Your task to perform on an android device: toggle priority inbox in the gmail app Image 0: 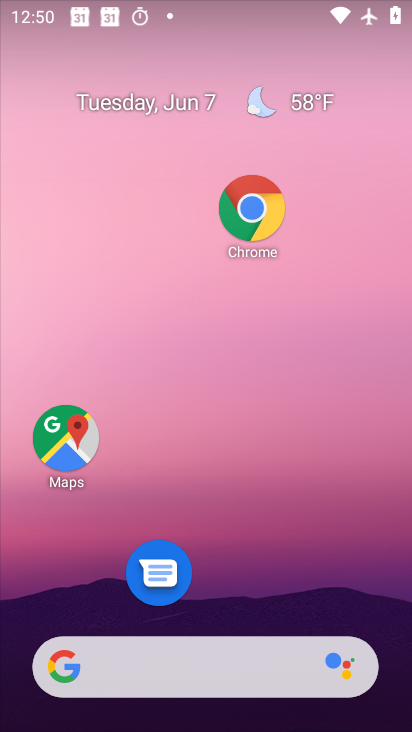
Step 0: drag from (217, 605) to (166, 152)
Your task to perform on an android device: toggle priority inbox in the gmail app Image 1: 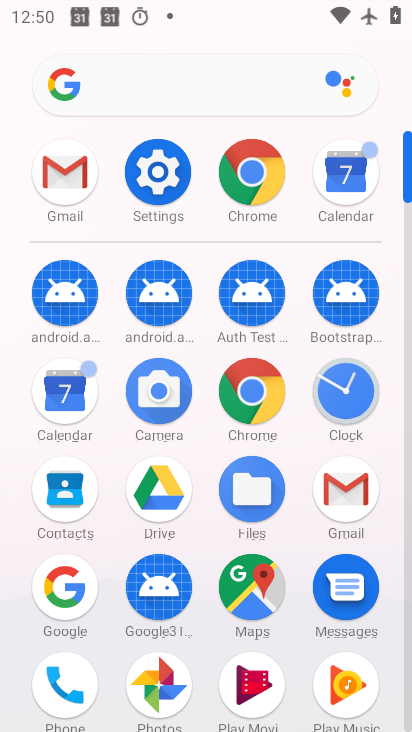
Step 1: click (84, 184)
Your task to perform on an android device: toggle priority inbox in the gmail app Image 2: 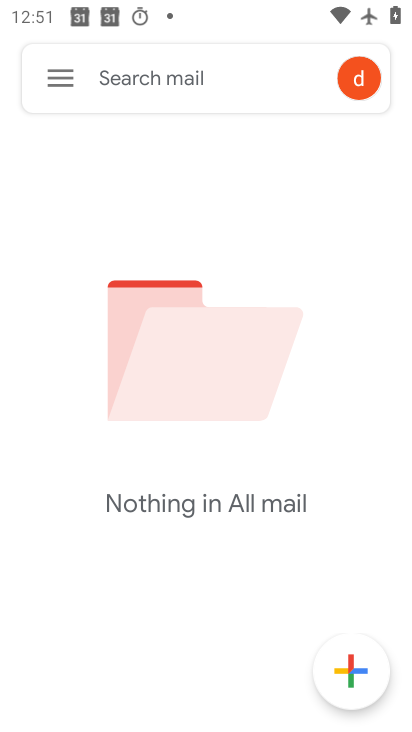
Step 2: click (51, 73)
Your task to perform on an android device: toggle priority inbox in the gmail app Image 3: 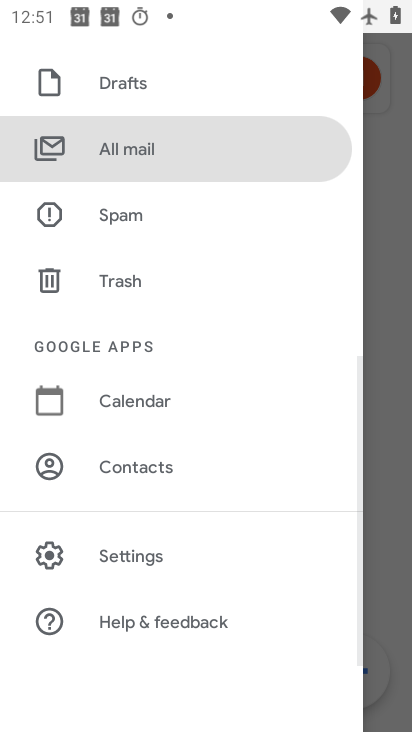
Step 3: click (161, 538)
Your task to perform on an android device: toggle priority inbox in the gmail app Image 4: 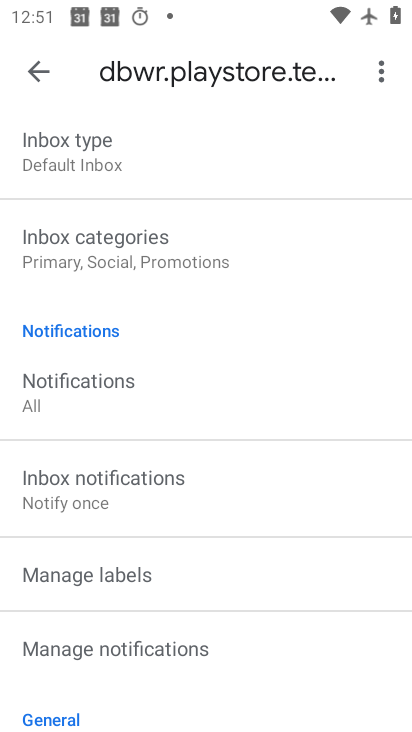
Step 4: click (175, 175)
Your task to perform on an android device: toggle priority inbox in the gmail app Image 5: 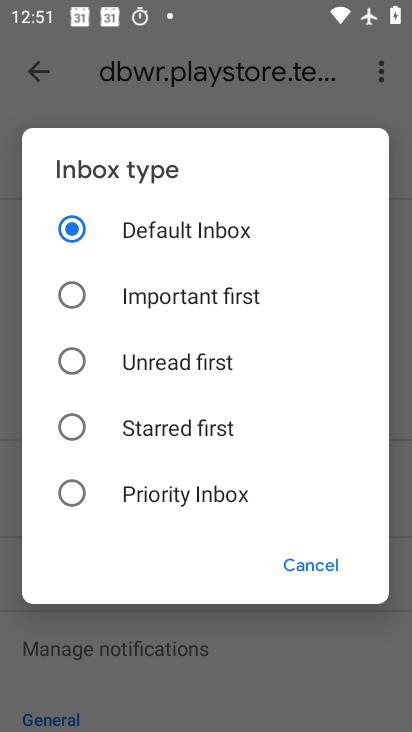
Step 5: click (150, 490)
Your task to perform on an android device: toggle priority inbox in the gmail app Image 6: 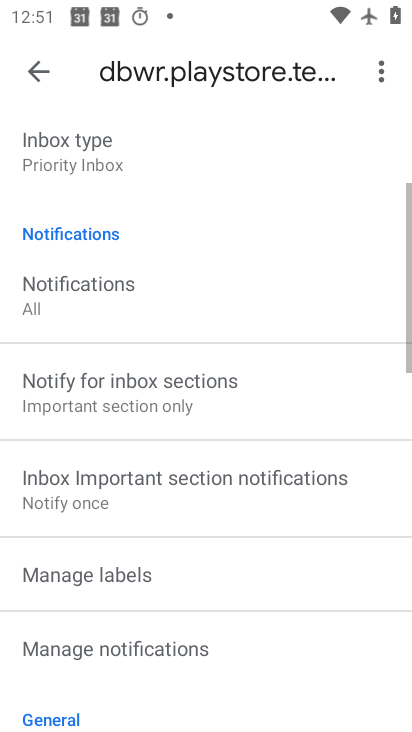
Step 6: task complete